Your task to perform on an android device: toggle wifi Image 0: 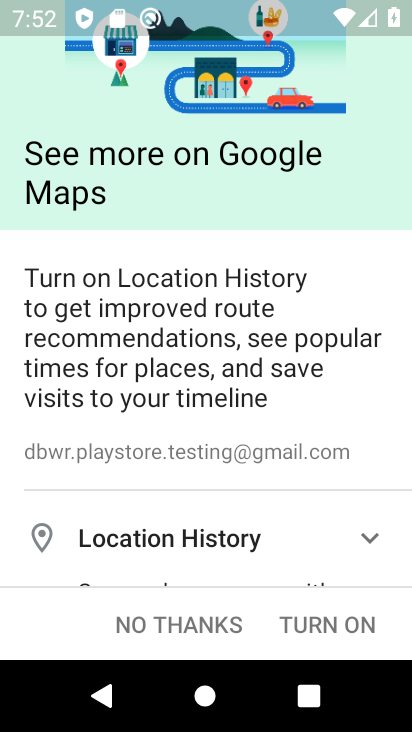
Step 0: press home button
Your task to perform on an android device: toggle wifi Image 1: 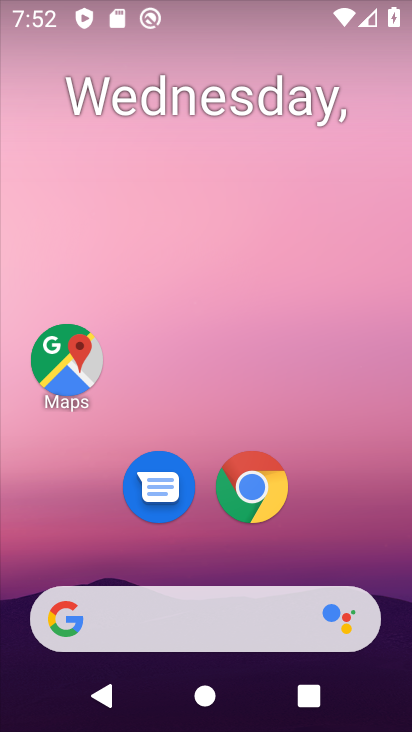
Step 1: drag from (359, 581) to (312, 1)
Your task to perform on an android device: toggle wifi Image 2: 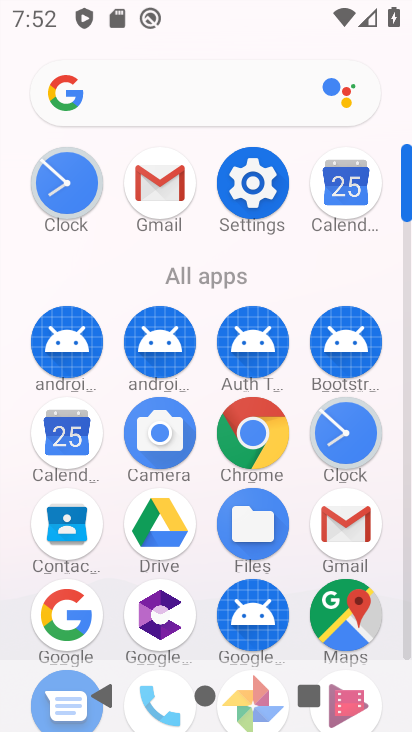
Step 2: click (255, 182)
Your task to perform on an android device: toggle wifi Image 3: 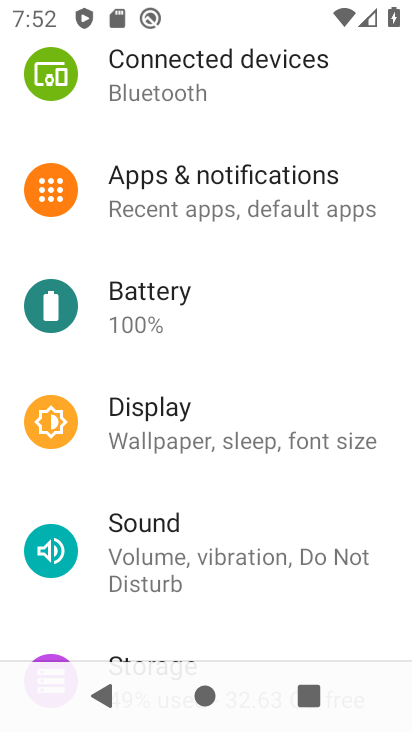
Step 3: drag from (252, 175) to (263, 508)
Your task to perform on an android device: toggle wifi Image 4: 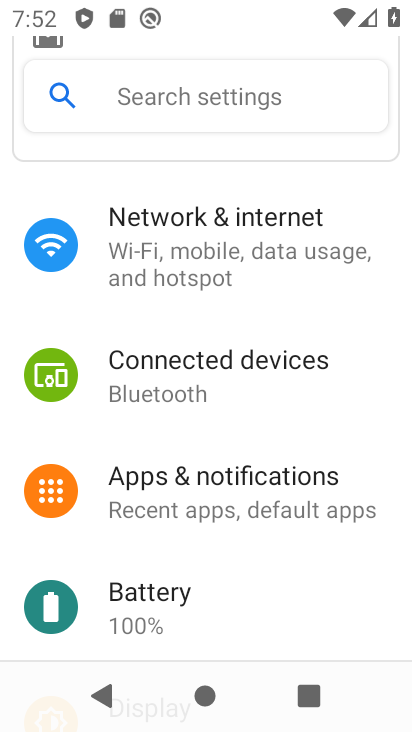
Step 4: click (179, 260)
Your task to perform on an android device: toggle wifi Image 5: 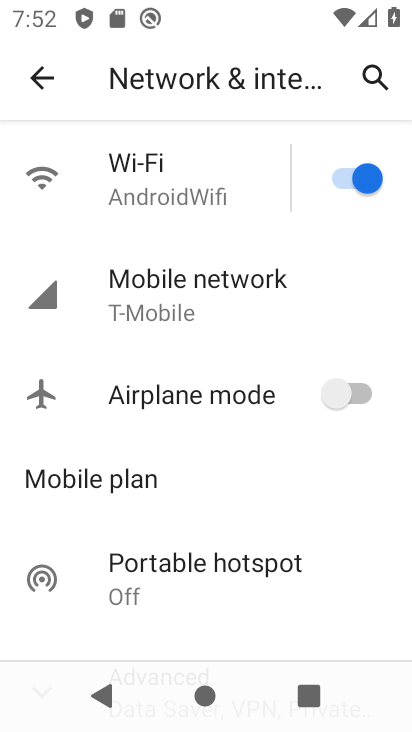
Step 5: click (351, 182)
Your task to perform on an android device: toggle wifi Image 6: 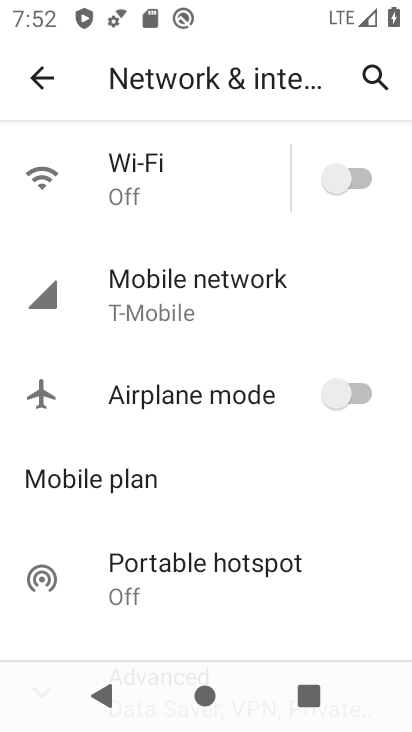
Step 6: task complete